Your task to perform on an android device: turn on data saver in the chrome app Image 0: 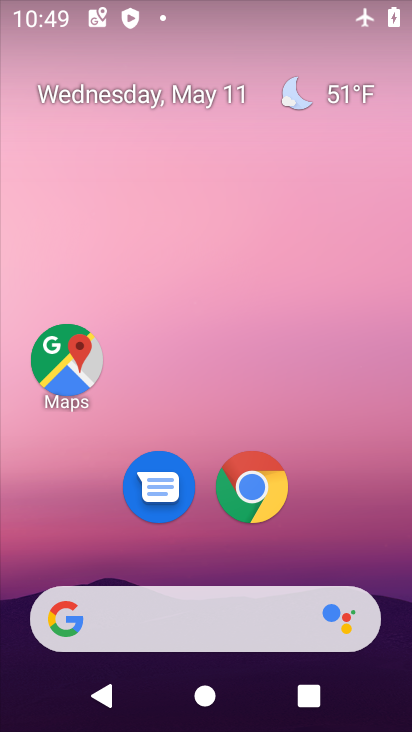
Step 0: click (275, 483)
Your task to perform on an android device: turn on data saver in the chrome app Image 1: 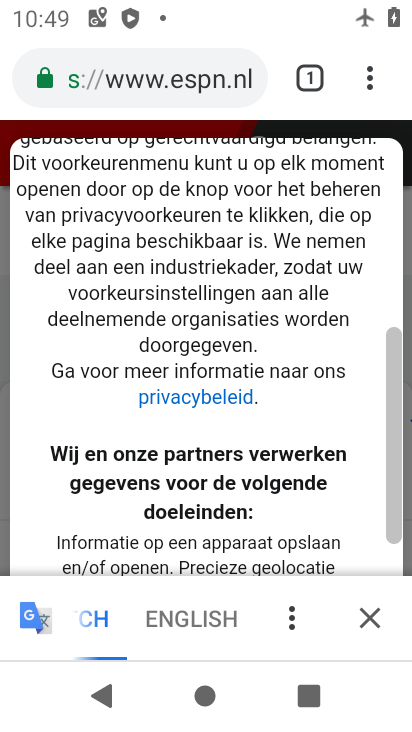
Step 1: click (368, 77)
Your task to perform on an android device: turn on data saver in the chrome app Image 2: 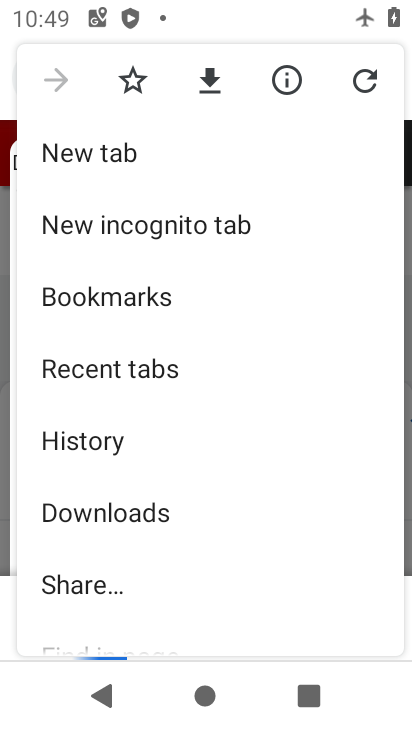
Step 2: drag from (250, 543) to (200, 232)
Your task to perform on an android device: turn on data saver in the chrome app Image 3: 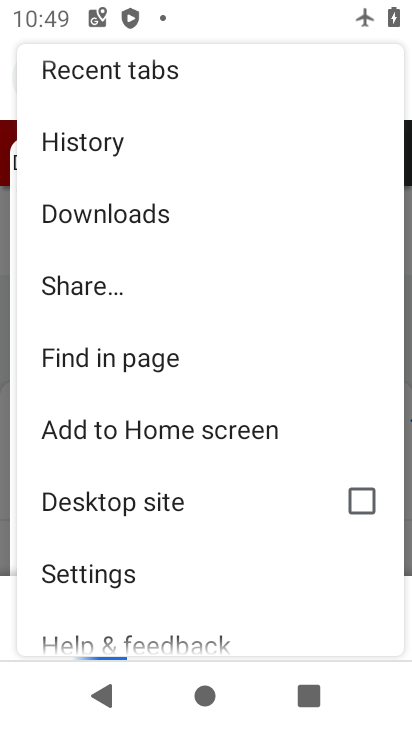
Step 3: click (155, 572)
Your task to perform on an android device: turn on data saver in the chrome app Image 4: 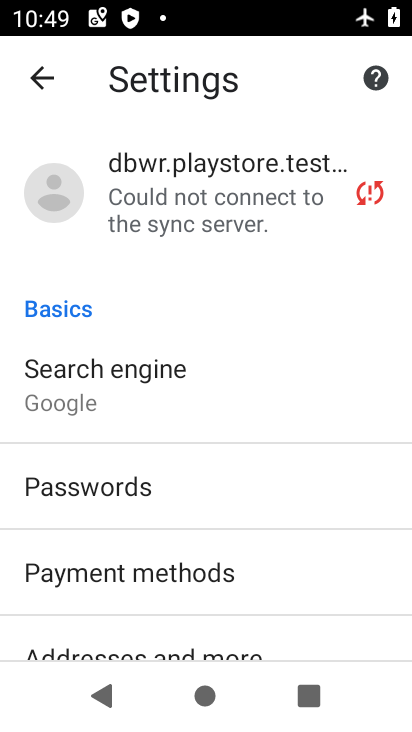
Step 4: drag from (284, 566) to (222, 306)
Your task to perform on an android device: turn on data saver in the chrome app Image 5: 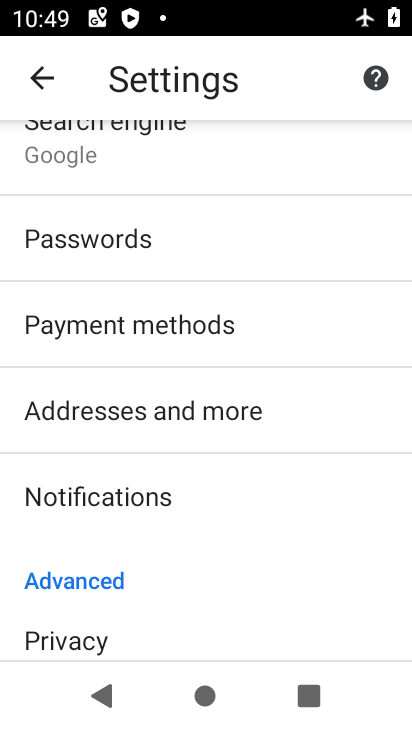
Step 5: drag from (302, 557) to (231, 318)
Your task to perform on an android device: turn on data saver in the chrome app Image 6: 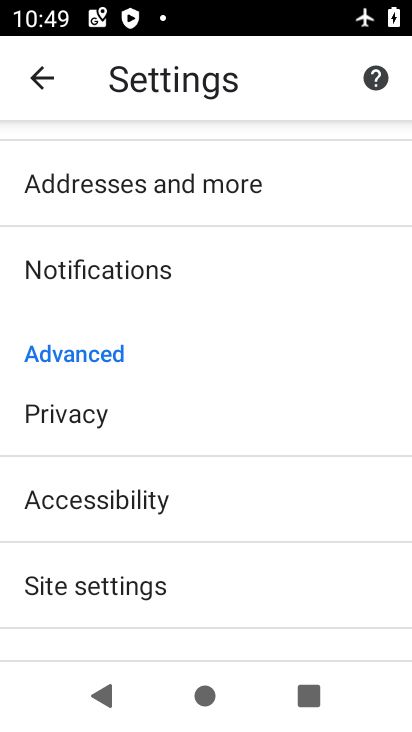
Step 6: drag from (314, 544) to (242, 312)
Your task to perform on an android device: turn on data saver in the chrome app Image 7: 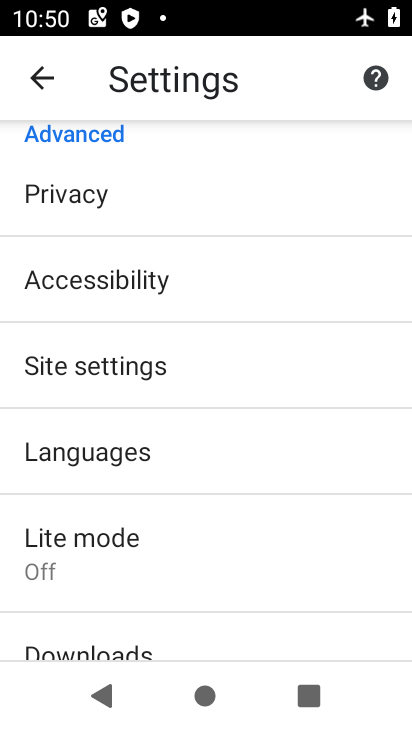
Step 7: drag from (260, 527) to (185, 252)
Your task to perform on an android device: turn on data saver in the chrome app Image 8: 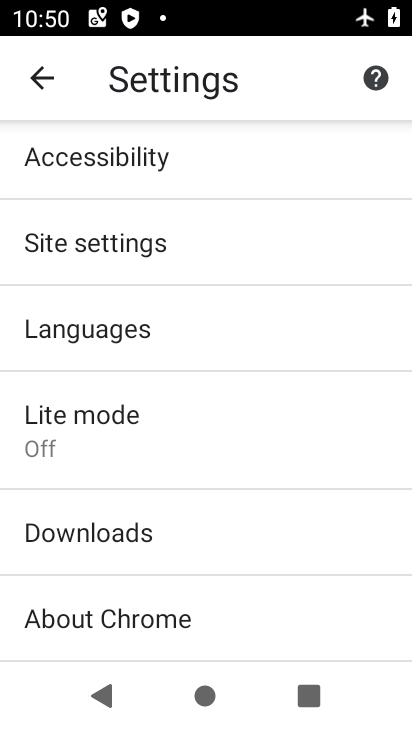
Step 8: drag from (304, 568) to (214, 286)
Your task to perform on an android device: turn on data saver in the chrome app Image 9: 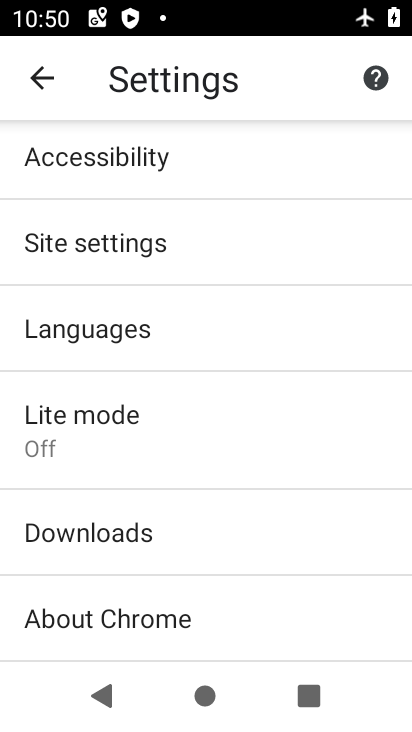
Step 9: click (204, 442)
Your task to perform on an android device: turn on data saver in the chrome app Image 10: 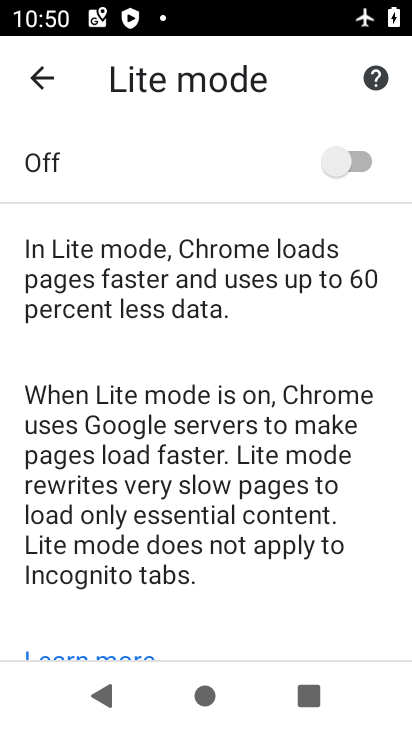
Step 10: click (349, 149)
Your task to perform on an android device: turn on data saver in the chrome app Image 11: 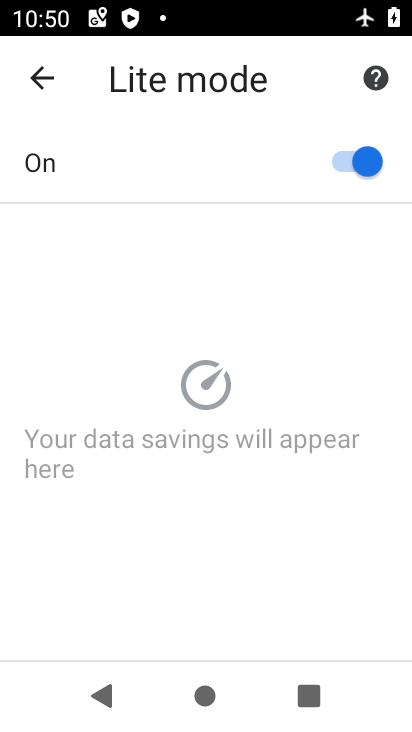
Step 11: task complete